Your task to perform on an android device: change the clock style Image 0: 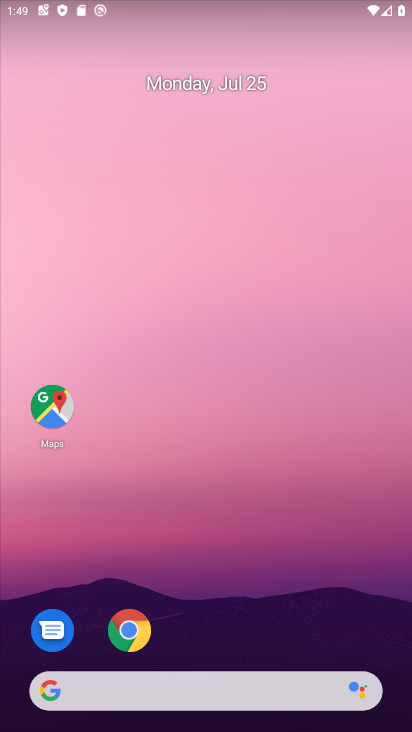
Step 0: drag from (203, 633) to (206, 89)
Your task to perform on an android device: change the clock style Image 1: 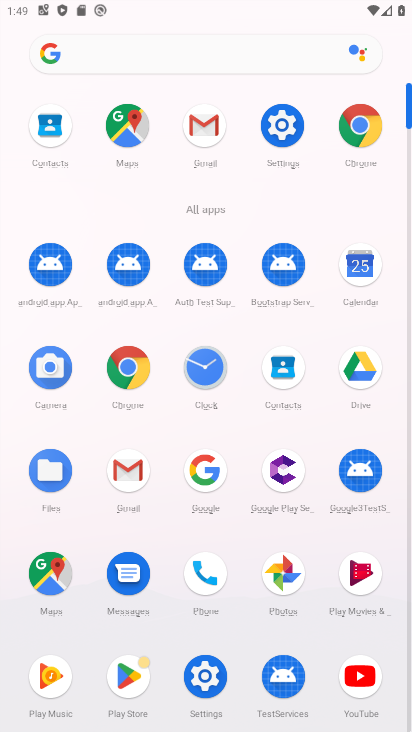
Step 1: click (214, 363)
Your task to perform on an android device: change the clock style Image 2: 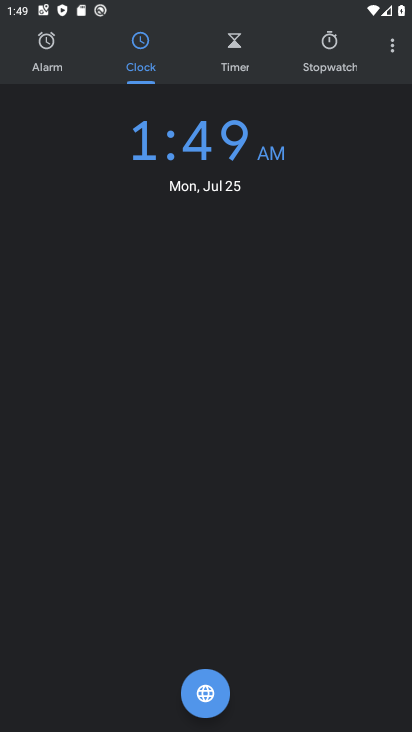
Step 2: click (394, 44)
Your task to perform on an android device: change the clock style Image 3: 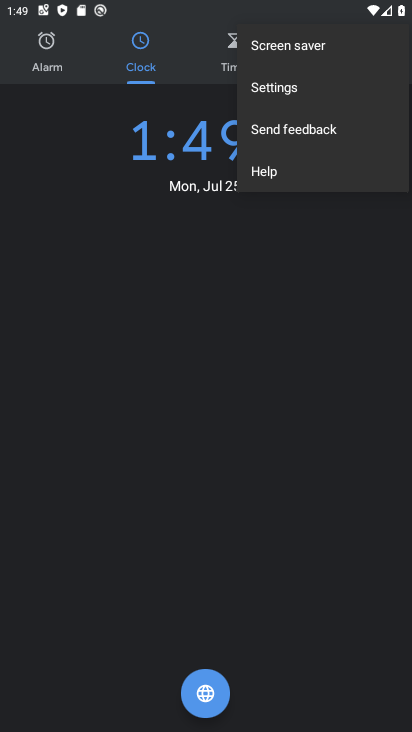
Step 3: click (301, 97)
Your task to perform on an android device: change the clock style Image 4: 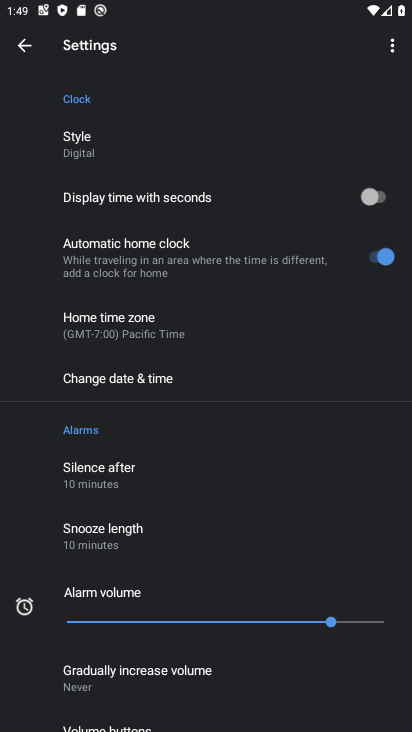
Step 4: click (145, 159)
Your task to perform on an android device: change the clock style Image 5: 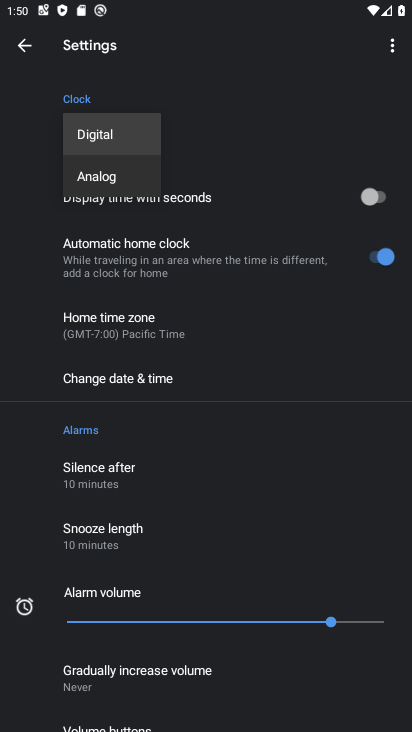
Step 5: click (105, 191)
Your task to perform on an android device: change the clock style Image 6: 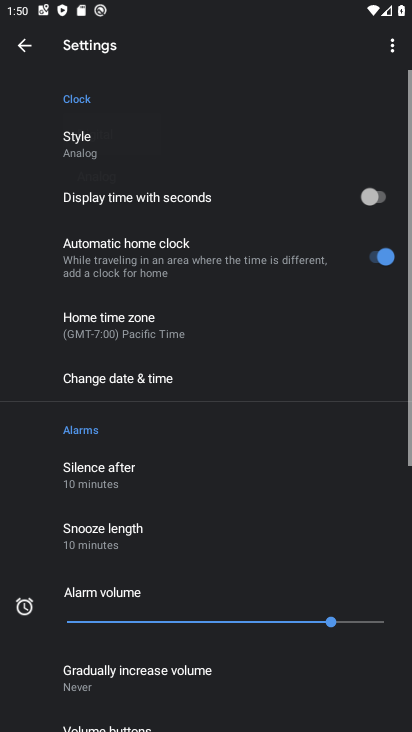
Step 6: task complete